Your task to perform on an android device: install app "PlayWell" Image 0: 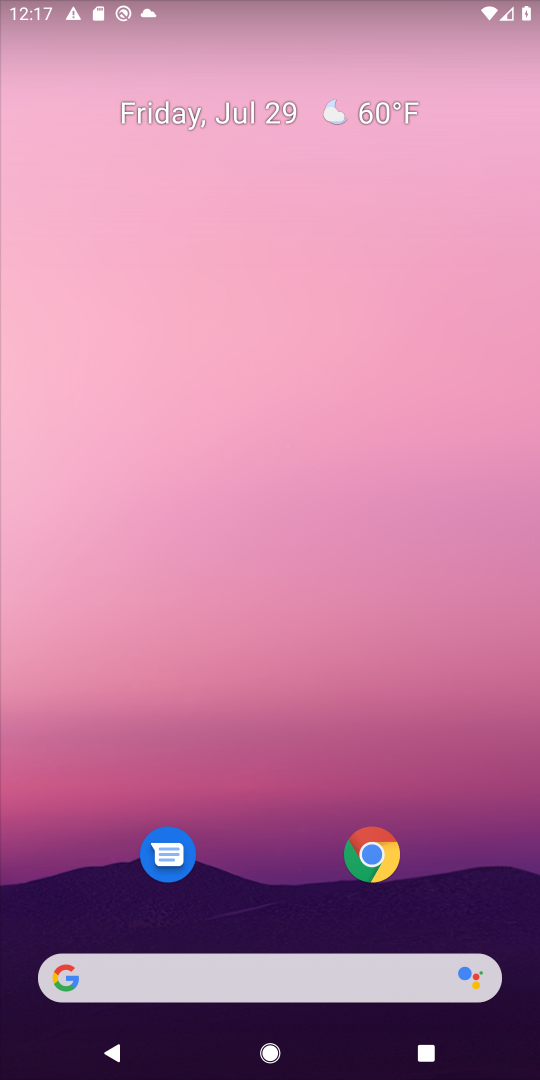
Step 0: drag from (275, 900) to (274, 536)
Your task to perform on an android device: install app "PlayWell" Image 1: 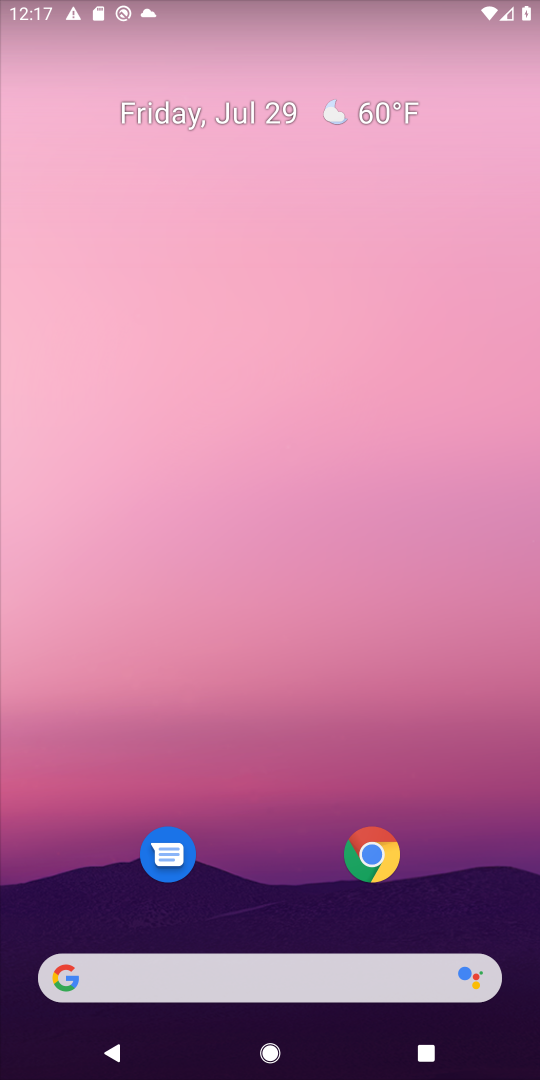
Step 1: drag from (227, 864) to (257, 170)
Your task to perform on an android device: install app "PlayWell" Image 2: 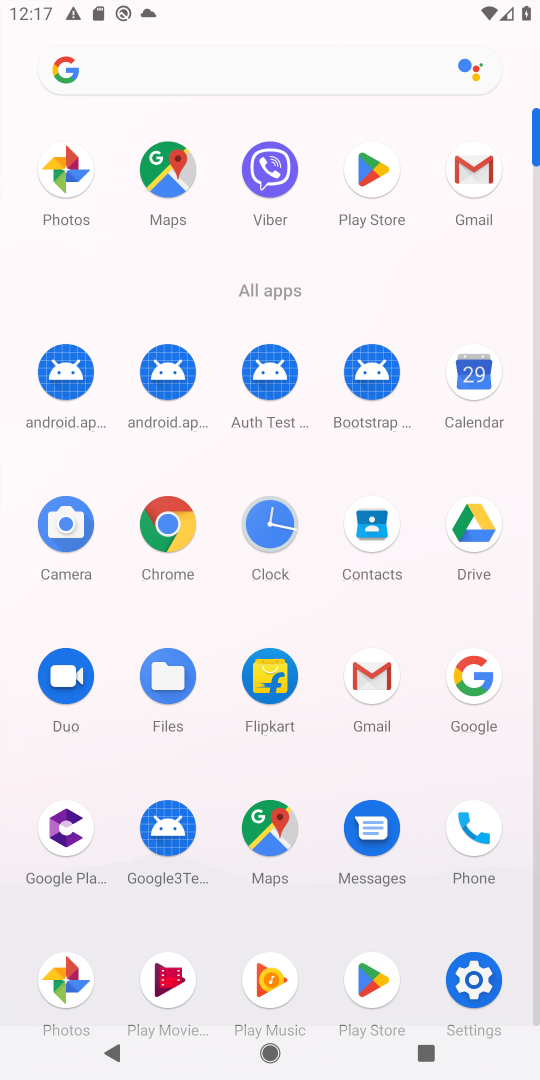
Step 2: click (378, 172)
Your task to perform on an android device: install app "PlayWell" Image 3: 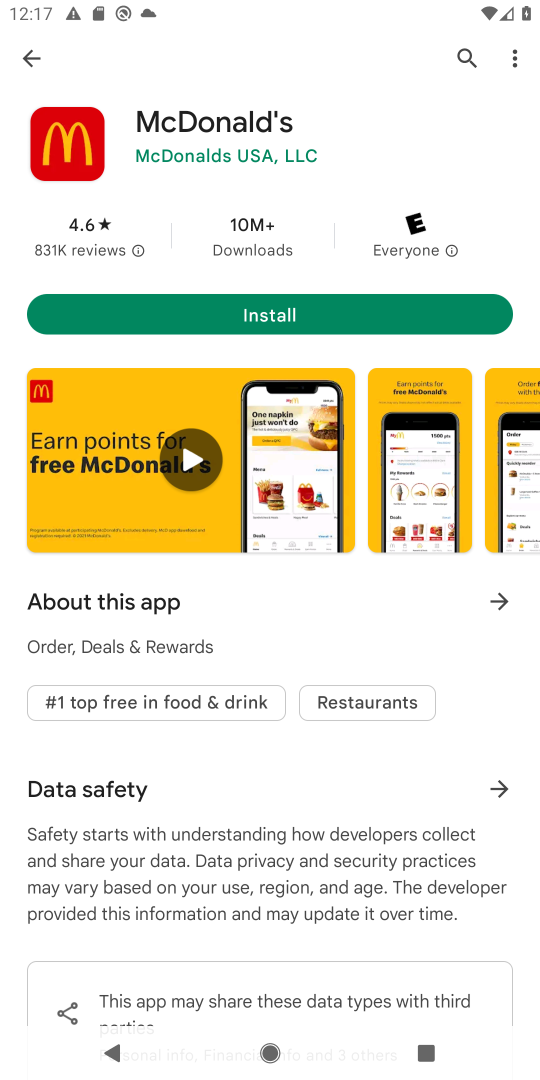
Step 3: click (462, 54)
Your task to perform on an android device: install app "PlayWell" Image 4: 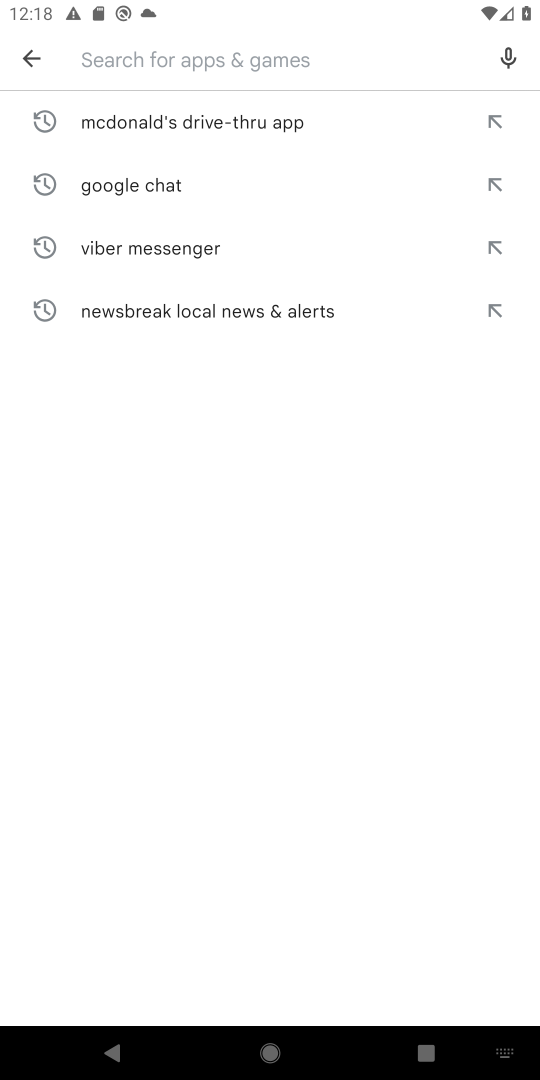
Step 4: type "playwell"
Your task to perform on an android device: install app "PlayWell" Image 5: 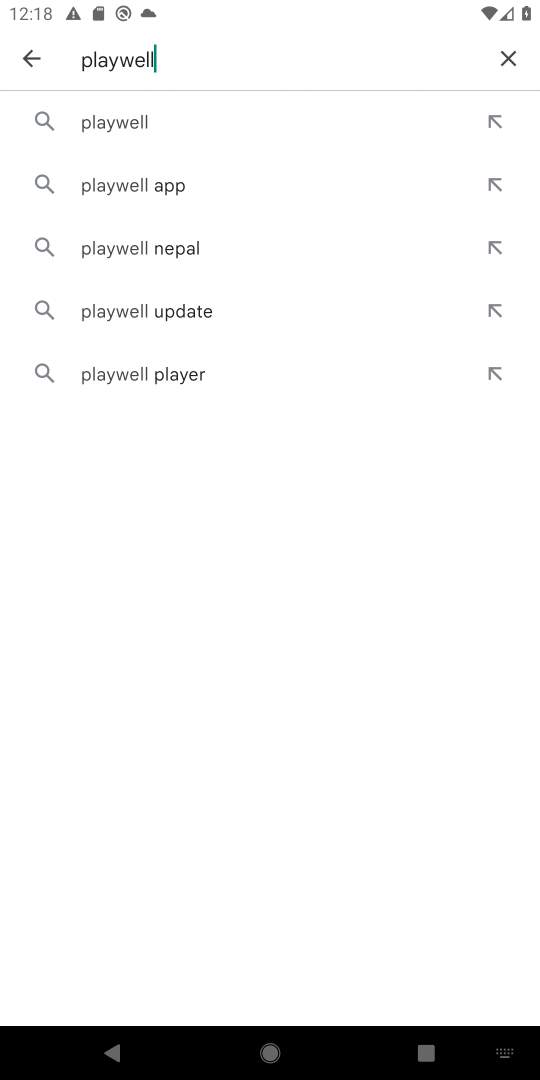
Step 5: click (111, 116)
Your task to perform on an android device: install app "PlayWell" Image 6: 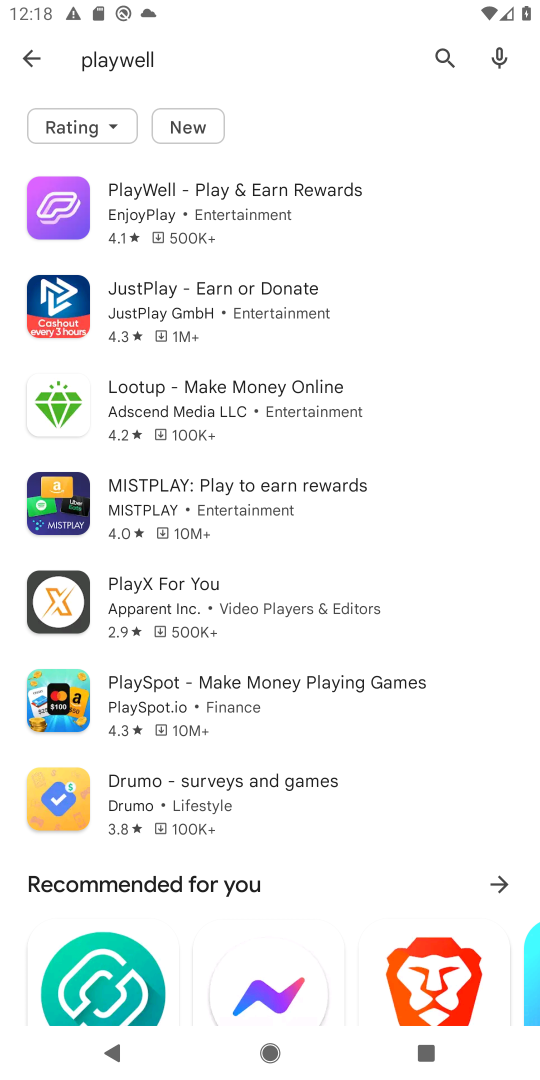
Step 6: click (211, 198)
Your task to perform on an android device: install app "PlayWell" Image 7: 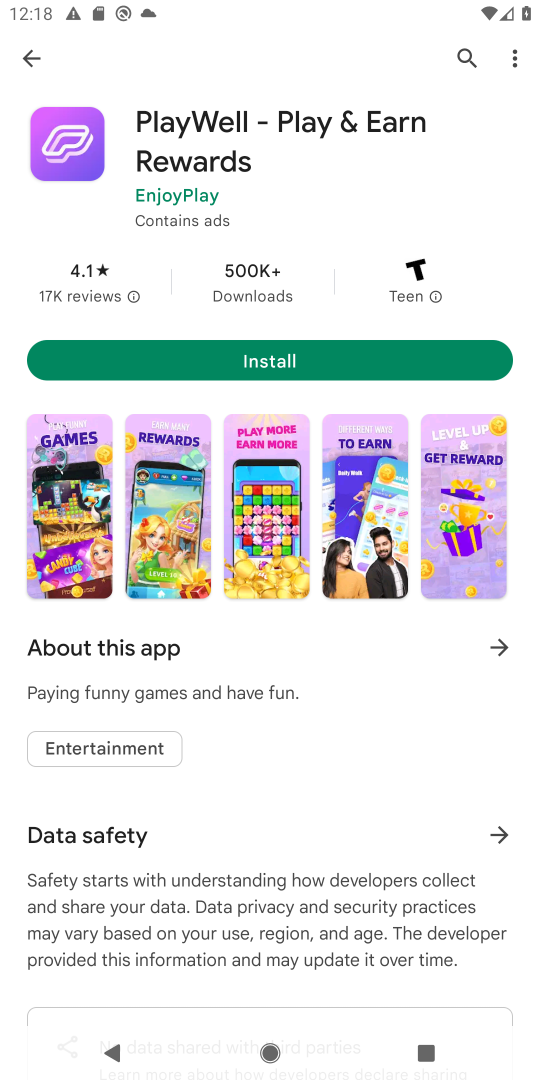
Step 7: click (324, 368)
Your task to perform on an android device: install app "PlayWell" Image 8: 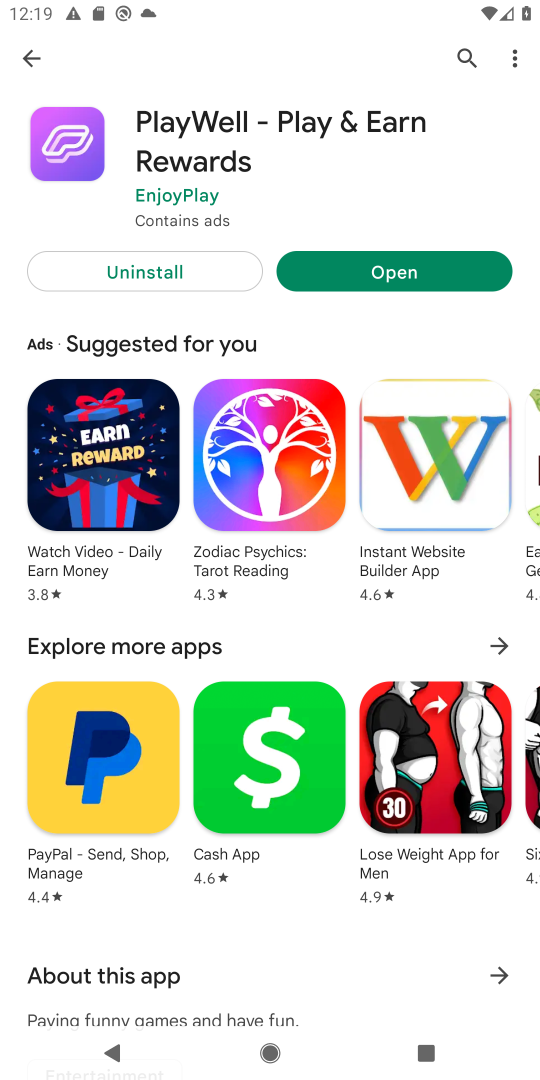
Step 8: task complete